Your task to perform on an android device: What is the recent news? Image 0: 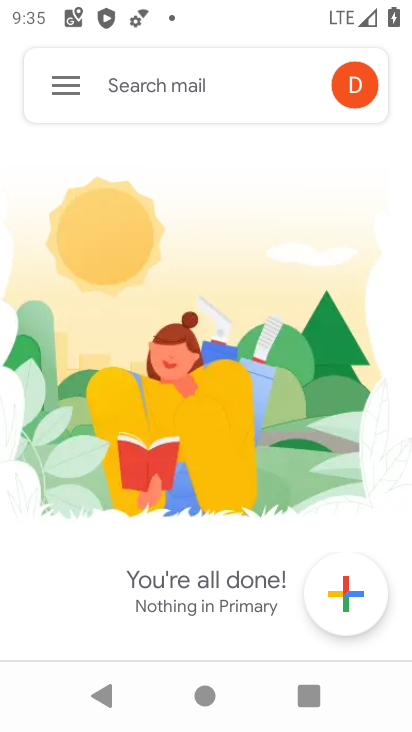
Step 0: press home button
Your task to perform on an android device: What is the recent news? Image 1: 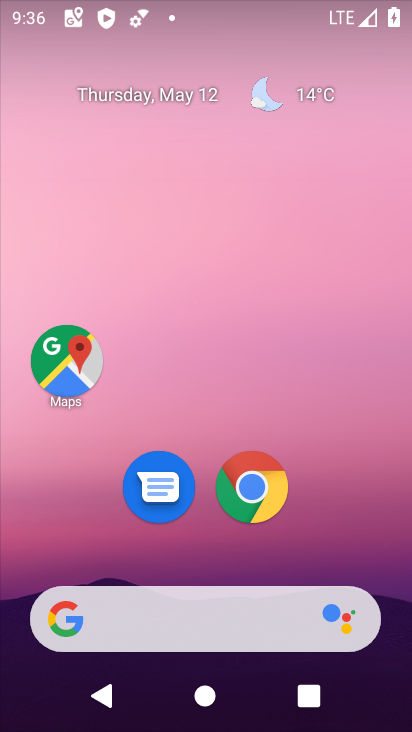
Step 1: click (251, 610)
Your task to perform on an android device: What is the recent news? Image 2: 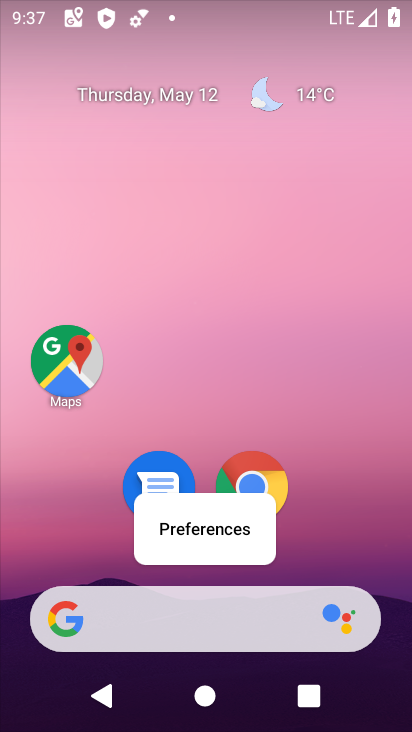
Step 2: click (142, 645)
Your task to perform on an android device: What is the recent news? Image 3: 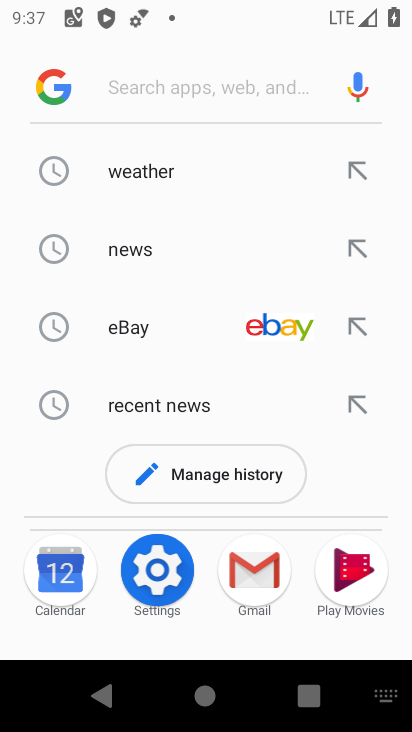
Step 3: click (100, 258)
Your task to perform on an android device: What is the recent news? Image 4: 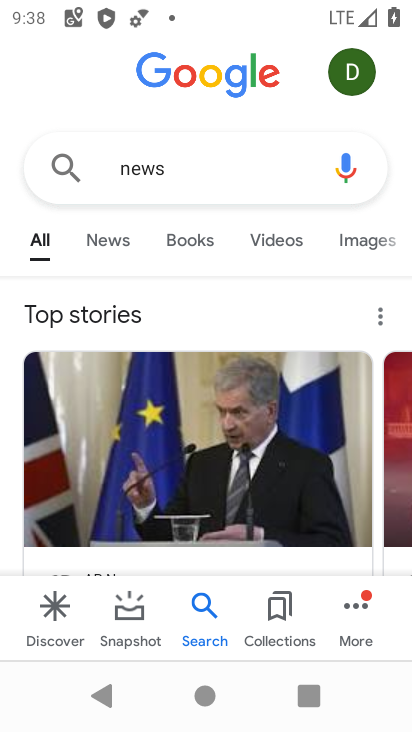
Step 4: task complete